Your task to perform on an android device: Open Wikipedia Image 0: 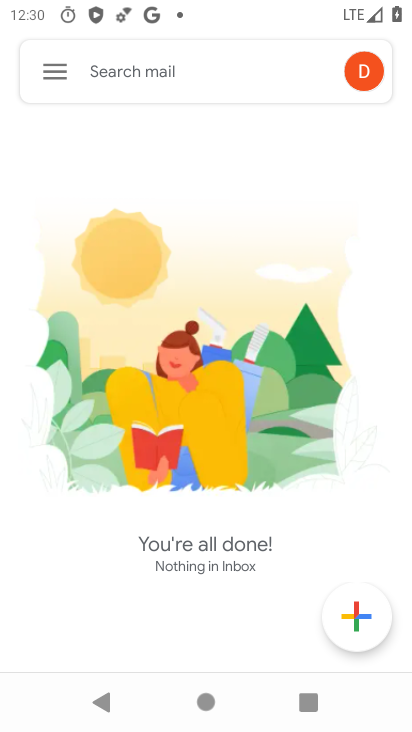
Step 0: press back button
Your task to perform on an android device: Open Wikipedia Image 1: 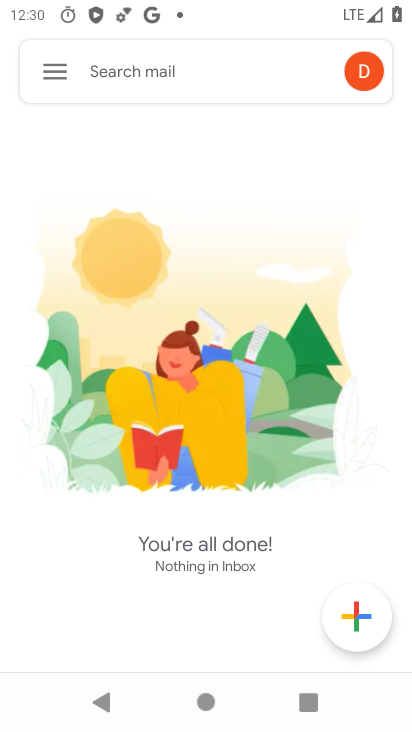
Step 1: press back button
Your task to perform on an android device: Open Wikipedia Image 2: 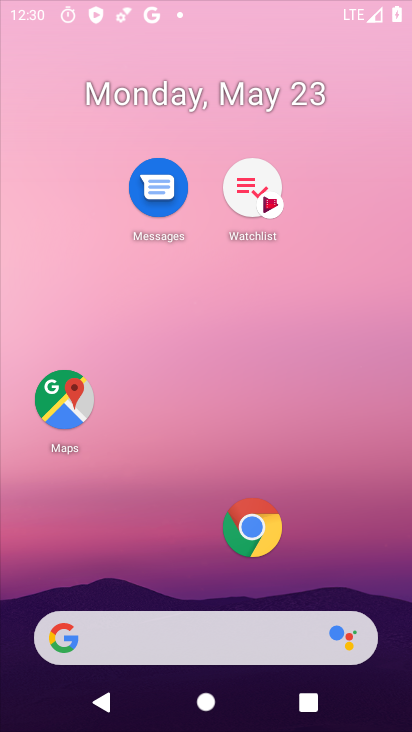
Step 2: press back button
Your task to perform on an android device: Open Wikipedia Image 3: 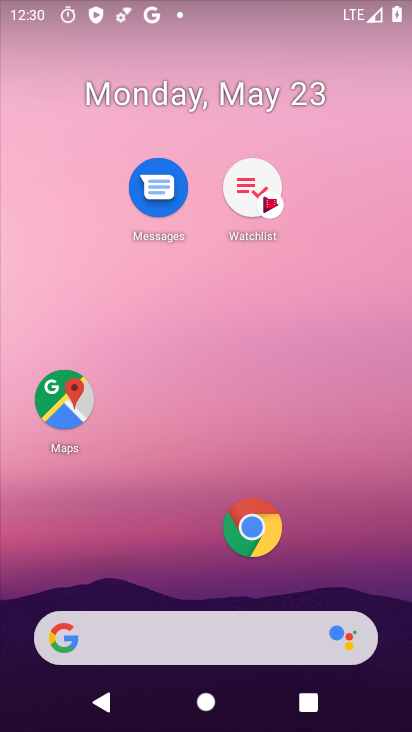
Step 3: drag from (277, 659) to (227, 22)
Your task to perform on an android device: Open Wikipedia Image 4: 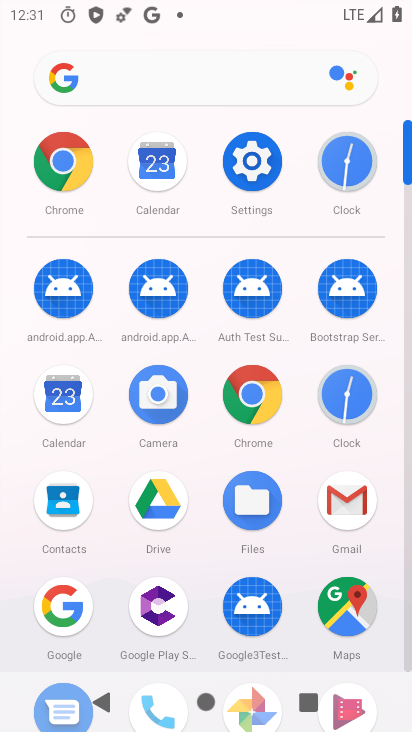
Step 4: click (78, 162)
Your task to perform on an android device: Open Wikipedia Image 5: 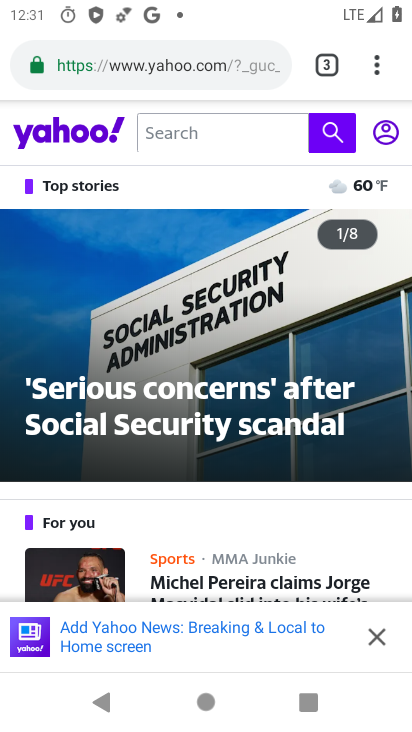
Step 5: click (372, 72)
Your task to perform on an android device: Open Wikipedia Image 6: 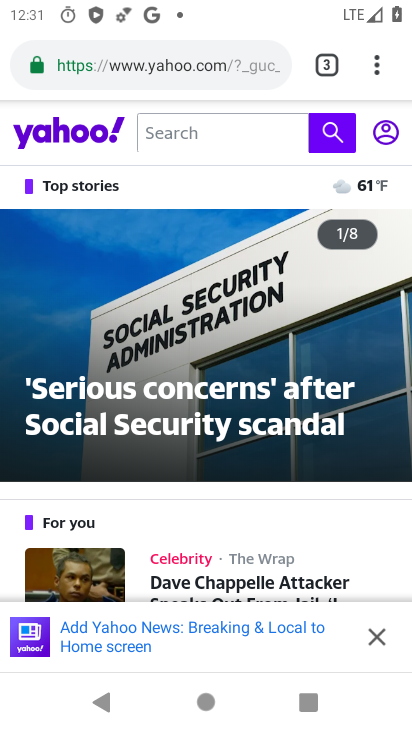
Step 6: drag from (372, 63) to (114, 144)
Your task to perform on an android device: Open Wikipedia Image 7: 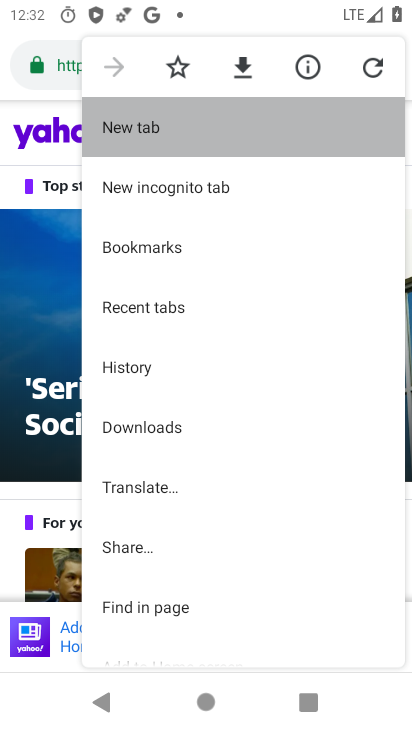
Step 7: click (114, 144)
Your task to perform on an android device: Open Wikipedia Image 8: 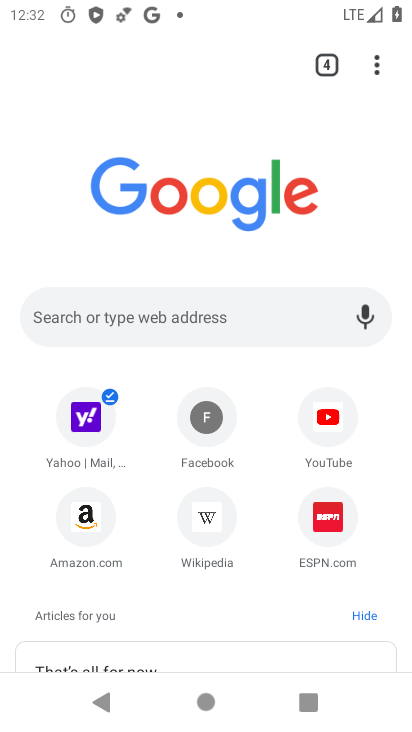
Step 8: click (210, 525)
Your task to perform on an android device: Open Wikipedia Image 9: 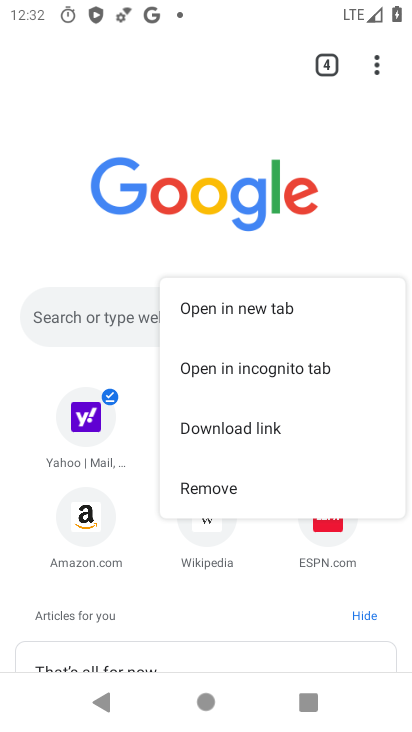
Step 9: click (234, 306)
Your task to perform on an android device: Open Wikipedia Image 10: 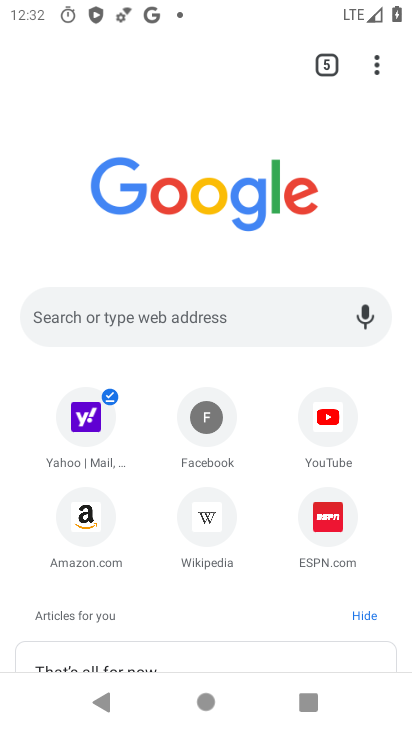
Step 10: click (203, 532)
Your task to perform on an android device: Open Wikipedia Image 11: 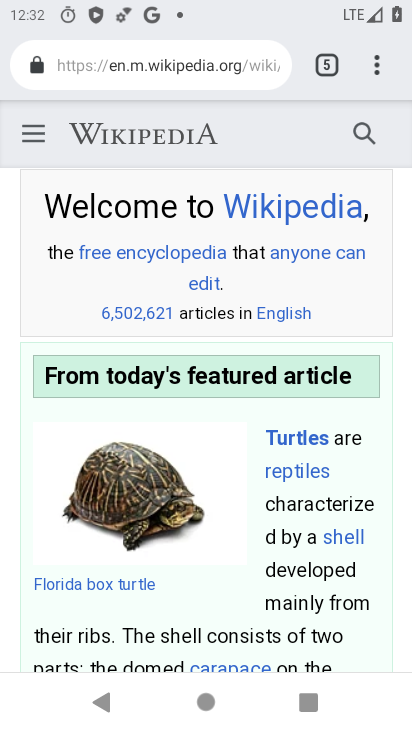
Step 11: task complete